Your task to perform on an android device: turn on priority inbox in the gmail app Image 0: 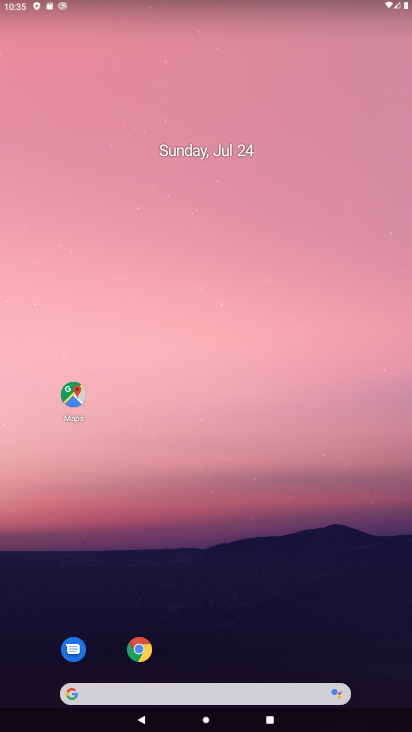
Step 0: drag from (167, 697) to (166, 155)
Your task to perform on an android device: turn on priority inbox in the gmail app Image 1: 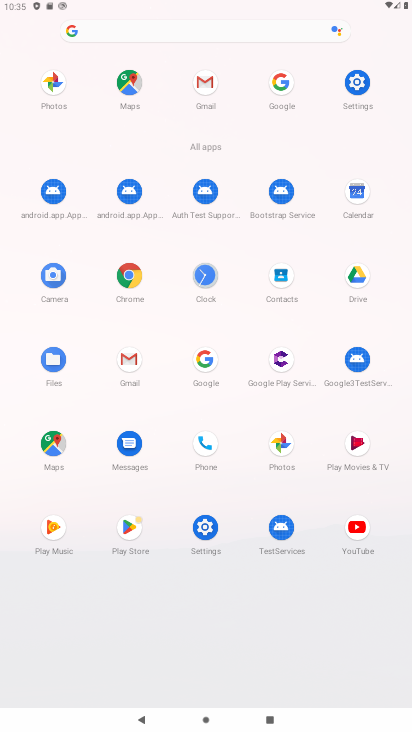
Step 1: click (123, 365)
Your task to perform on an android device: turn on priority inbox in the gmail app Image 2: 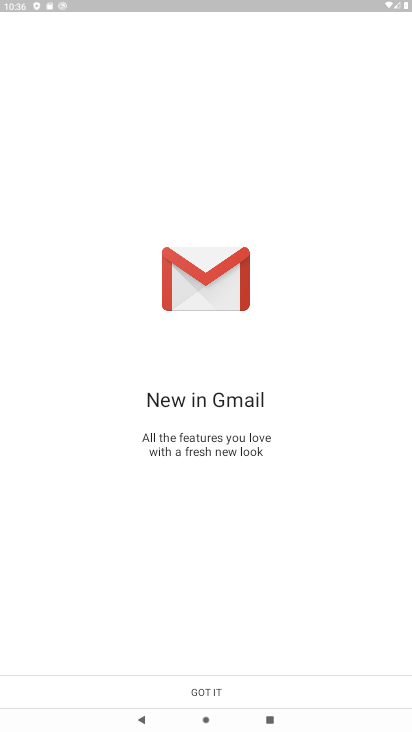
Step 2: click (229, 680)
Your task to perform on an android device: turn on priority inbox in the gmail app Image 3: 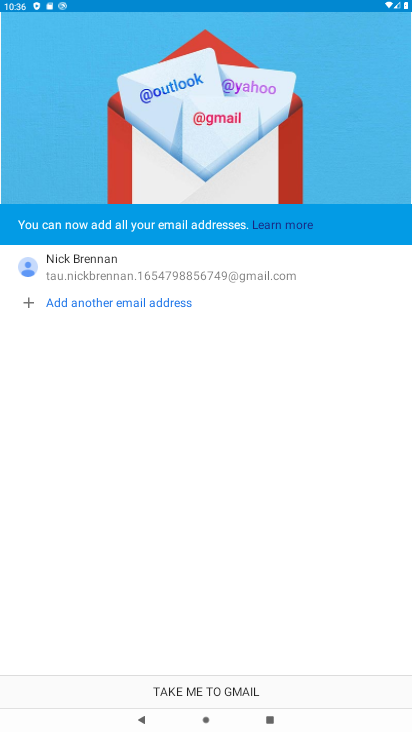
Step 3: click (228, 684)
Your task to perform on an android device: turn on priority inbox in the gmail app Image 4: 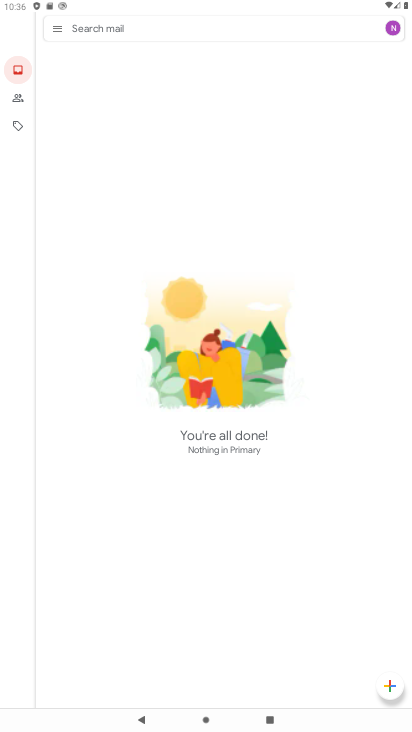
Step 4: click (57, 30)
Your task to perform on an android device: turn on priority inbox in the gmail app Image 5: 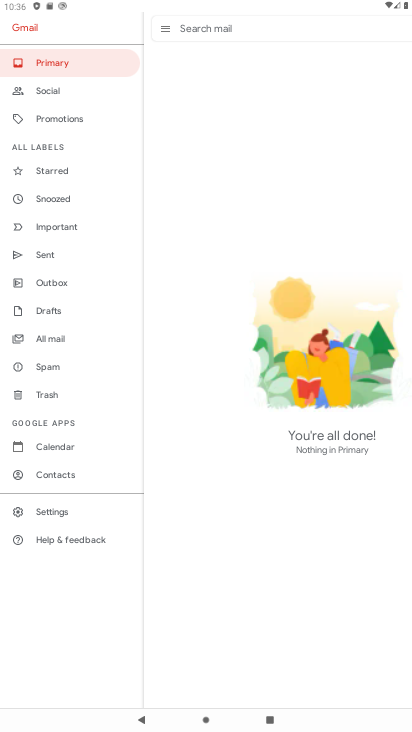
Step 5: click (60, 512)
Your task to perform on an android device: turn on priority inbox in the gmail app Image 6: 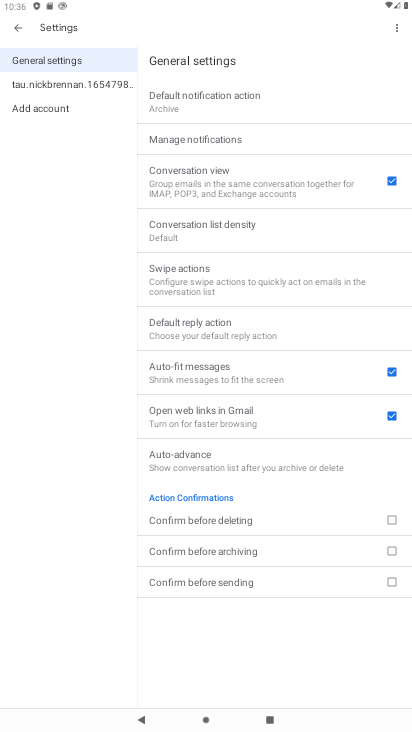
Step 6: click (101, 89)
Your task to perform on an android device: turn on priority inbox in the gmail app Image 7: 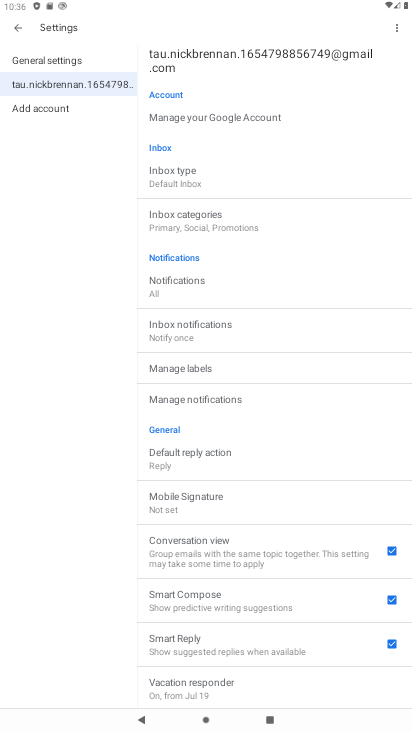
Step 7: click (212, 189)
Your task to perform on an android device: turn on priority inbox in the gmail app Image 8: 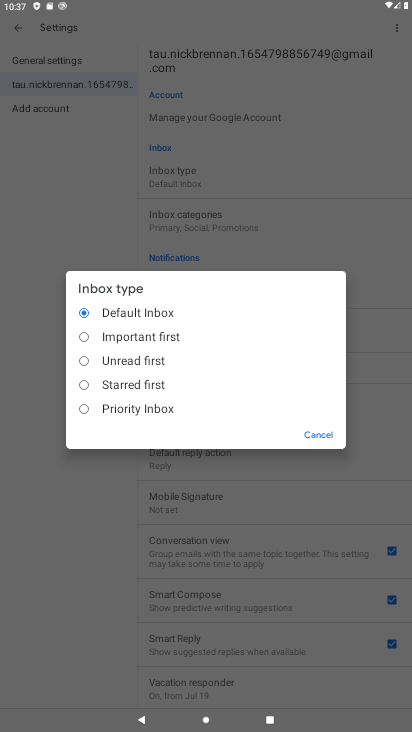
Step 8: click (136, 410)
Your task to perform on an android device: turn on priority inbox in the gmail app Image 9: 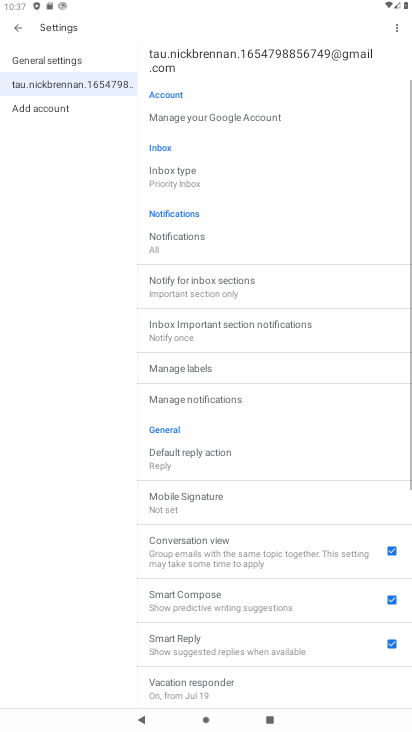
Step 9: task complete